Your task to perform on an android device: delete a single message in the gmail app Image 0: 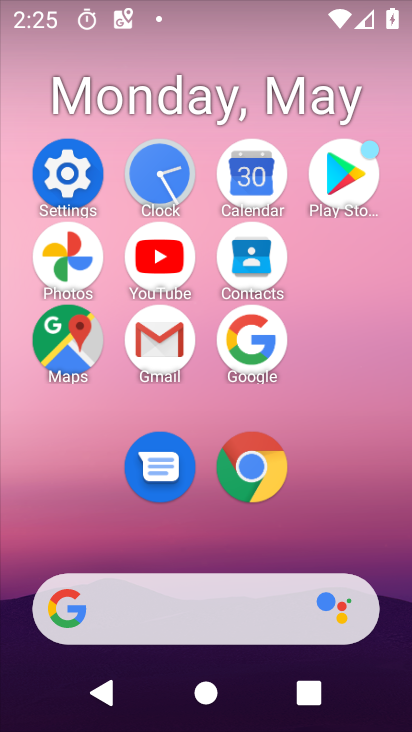
Step 0: click (179, 351)
Your task to perform on an android device: delete a single message in the gmail app Image 1: 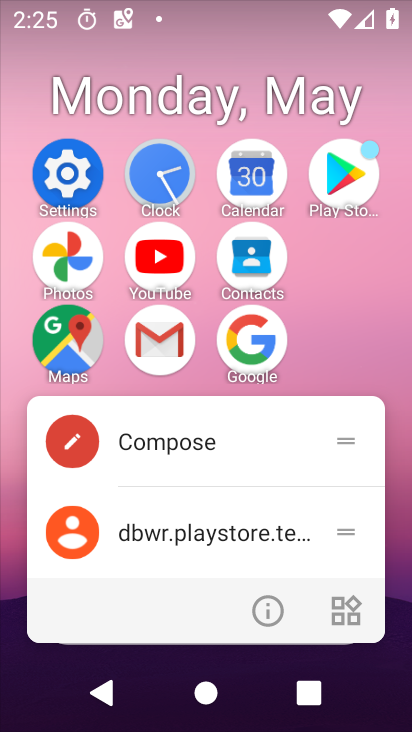
Step 1: click (161, 346)
Your task to perform on an android device: delete a single message in the gmail app Image 2: 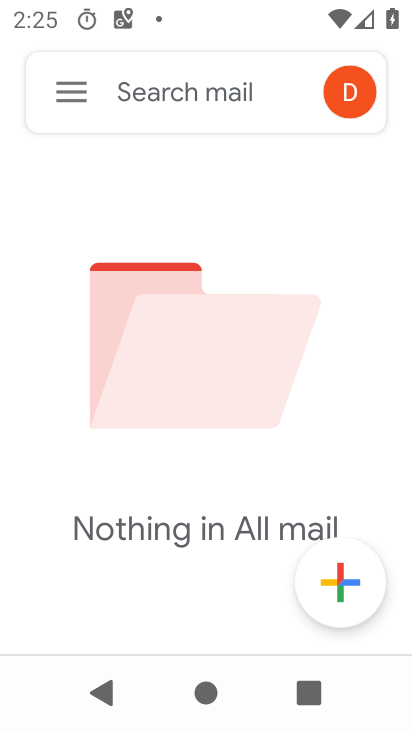
Step 2: click (71, 82)
Your task to perform on an android device: delete a single message in the gmail app Image 3: 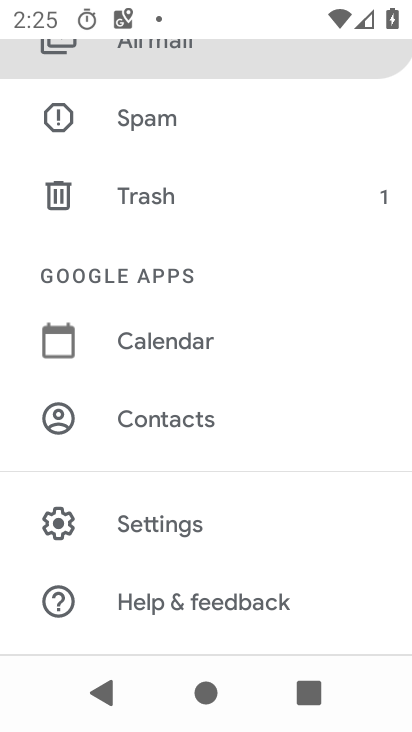
Step 3: drag from (251, 174) to (320, 655)
Your task to perform on an android device: delete a single message in the gmail app Image 4: 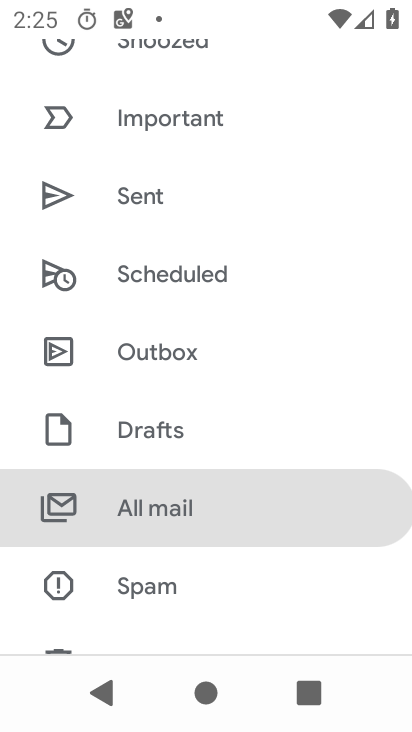
Step 4: click (237, 502)
Your task to perform on an android device: delete a single message in the gmail app Image 5: 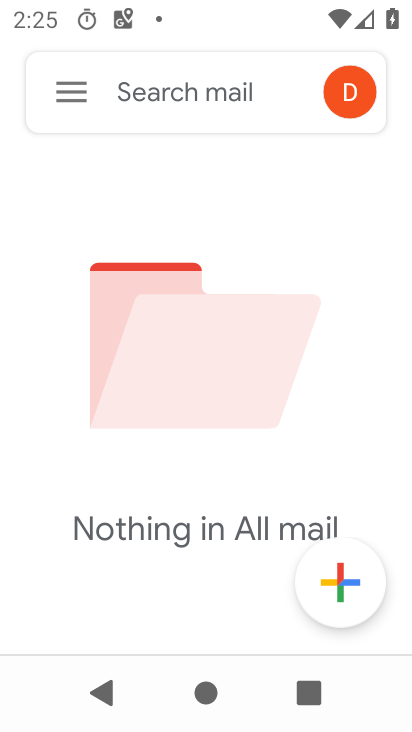
Step 5: task complete